Your task to perform on an android device: clear all cookies in the chrome app Image 0: 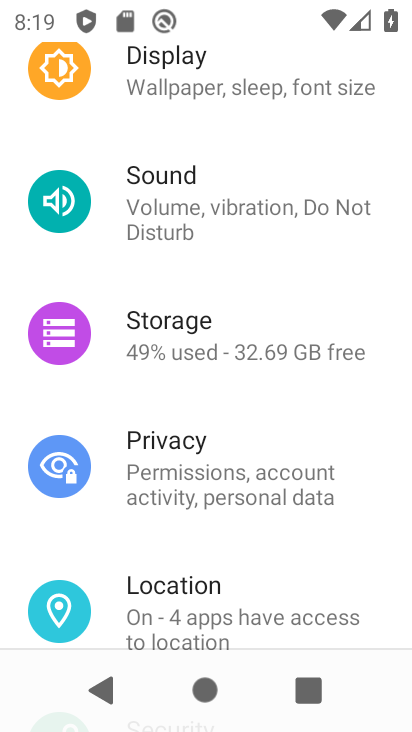
Step 0: press home button
Your task to perform on an android device: clear all cookies in the chrome app Image 1: 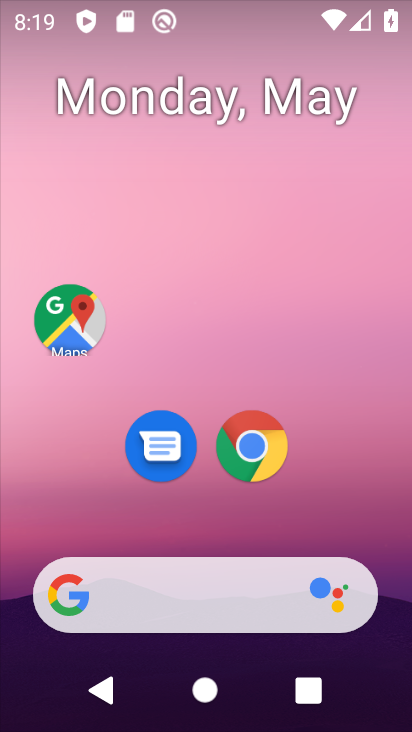
Step 1: click (247, 438)
Your task to perform on an android device: clear all cookies in the chrome app Image 2: 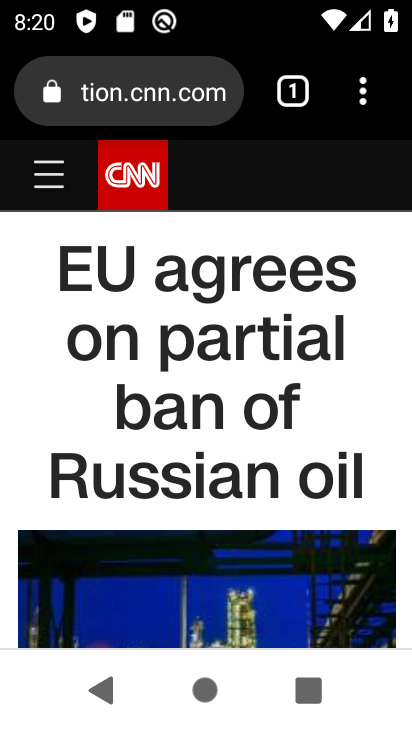
Step 2: click (360, 93)
Your task to perform on an android device: clear all cookies in the chrome app Image 3: 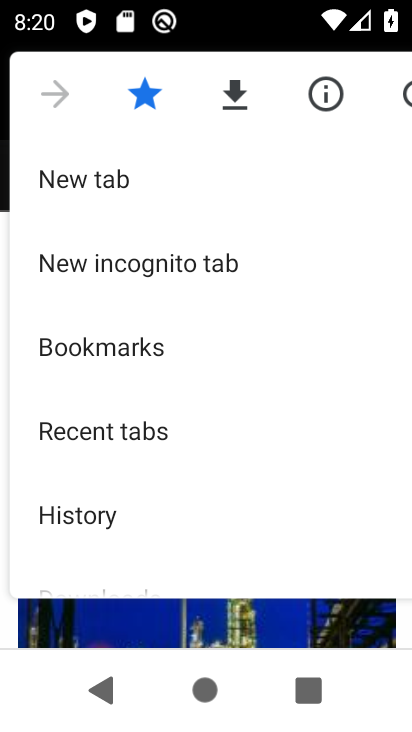
Step 3: click (137, 516)
Your task to perform on an android device: clear all cookies in the chrome app Image 4: 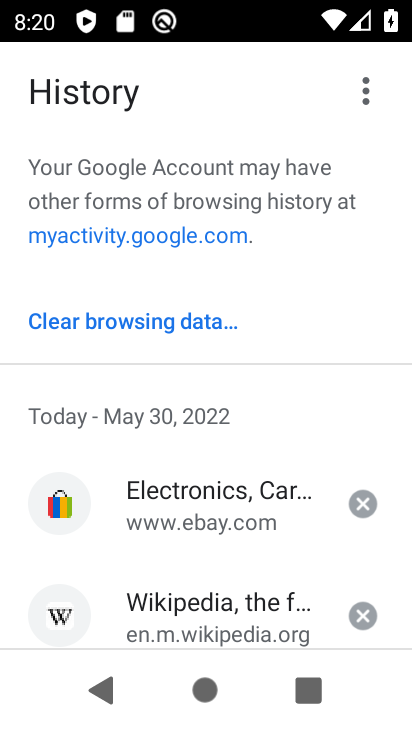
Step 4: click (150, 332)
Your task to perform on an android device: clear all cookies in the chrome app Image 5: 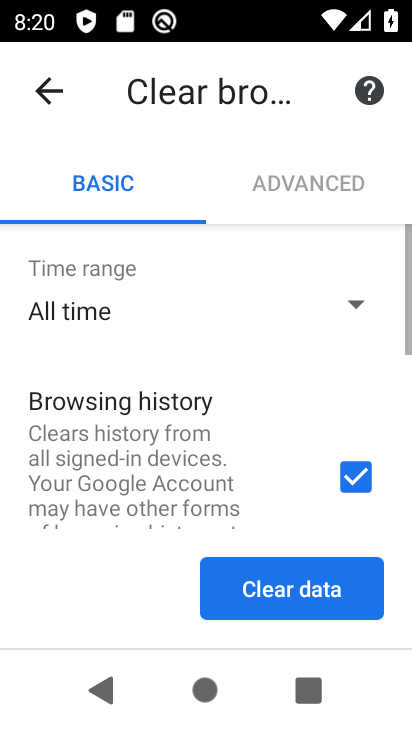
Step 5: drag from (235, 478) to (242, 333)
Your task to perform on an android device: clear all cookies in the chrome app Image 6: 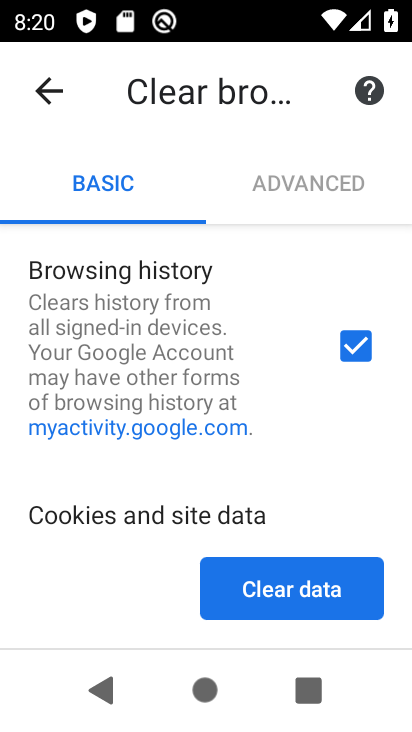
Step 6: click (348, 334)
Your task to perform on an android device: clear all cookies in the chrome app Image 7: 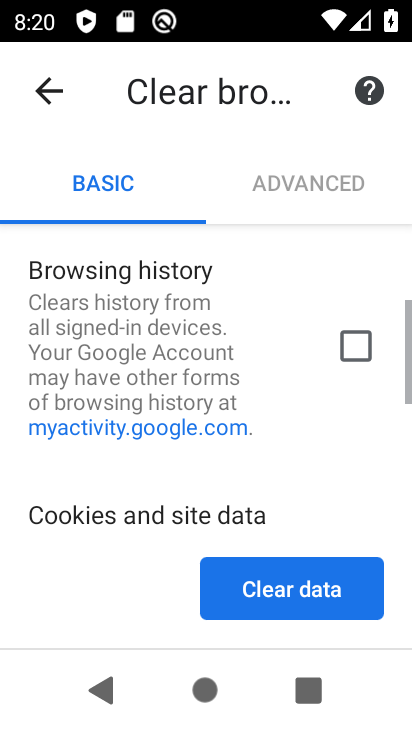
Step 7: drag from (249, 484) to (265, 206)
Your task to perform on an android device: clear all cookies in the chrome app Image 8: 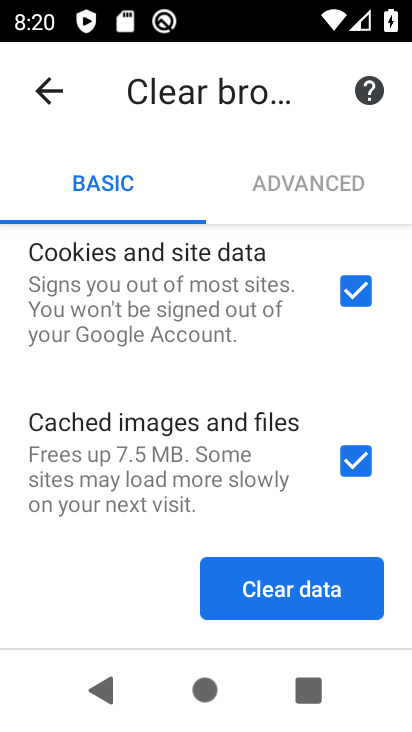
Step 8: click (353, 458)
Your task to perform on an android device: clear all cookies in the chrome app Image 9: 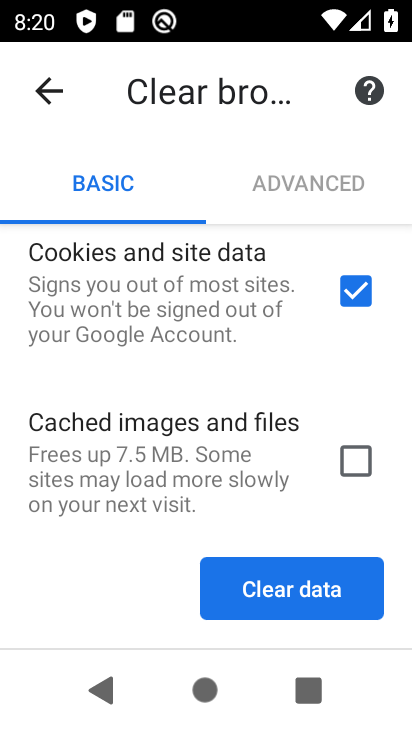
Step 9: click (295, 594)
Your task to perform on an android device: clear all cookies in the chrome app Image 10: 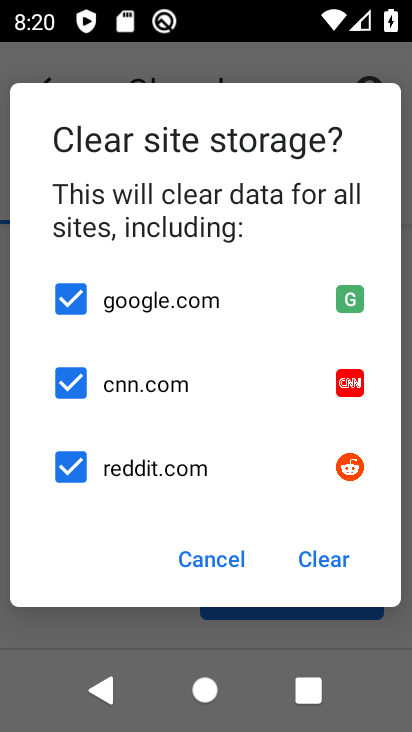
Step 10: click (325, 561)
Your task to perform on an android device: clear all cookies in the chrome app Image 11: 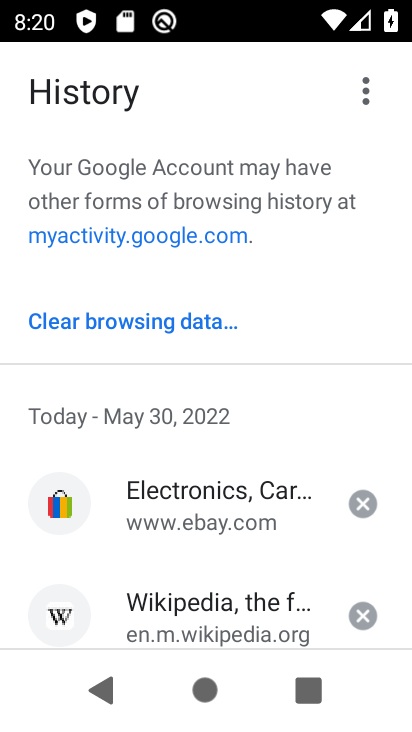
Step 11: task complete